Your task to perform on an android device: What's the weather? Image 0: 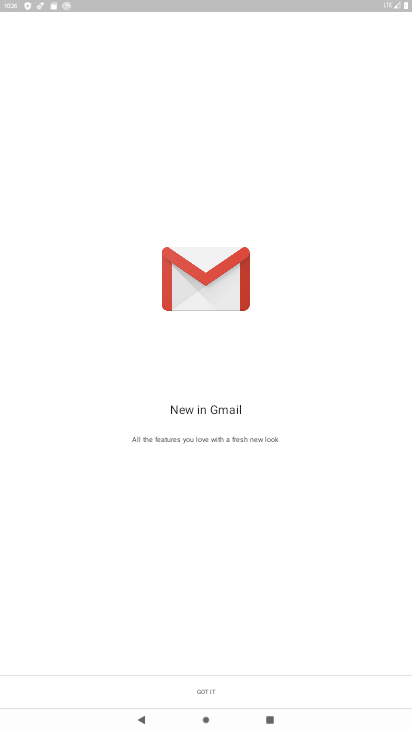
Step 0: press home button
Your task to perform on an android device: What's the weather? Image 1: 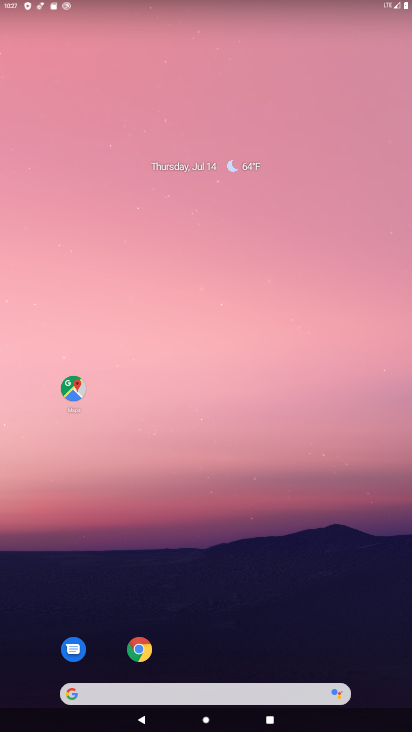
Step 1: click (133, 664)
Your task to perform on an android device: What's the weather? Image 2: 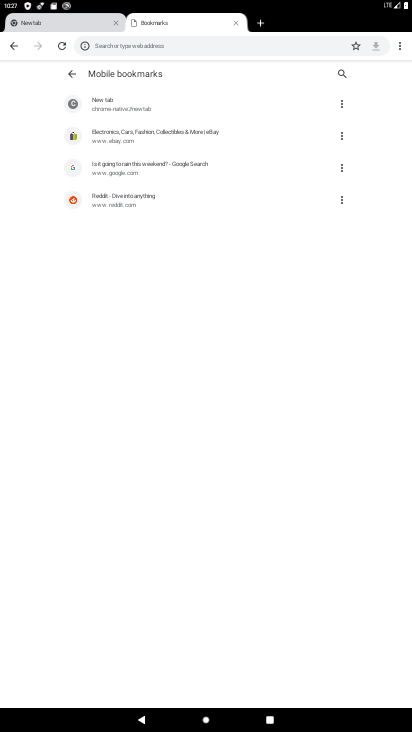
Step 2: click (150, 46)
Your task to perform on an android device: What's the weather? Image 3: 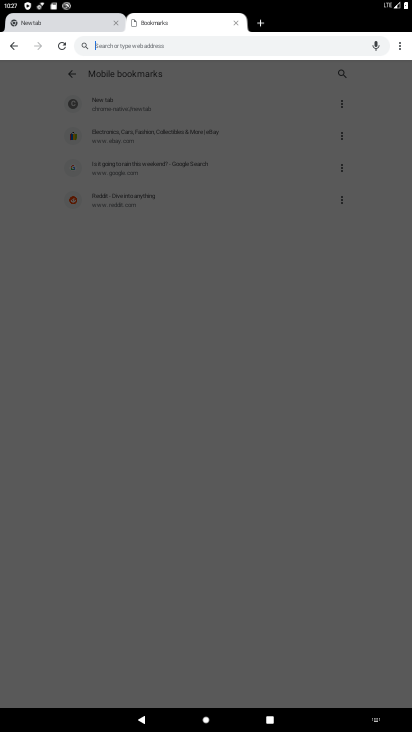
Step 3: type "What's the weather?"
Your task to perform on an android device: What's the weather? Image 4: 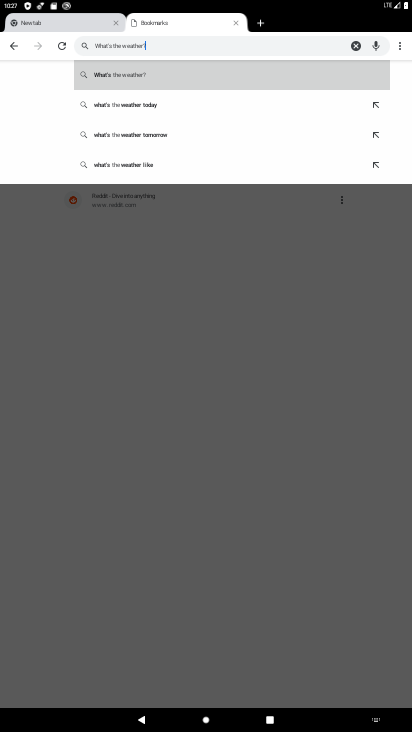
Step 4: type ""
Your task to perform on an android device: What's the weather? Image 5: 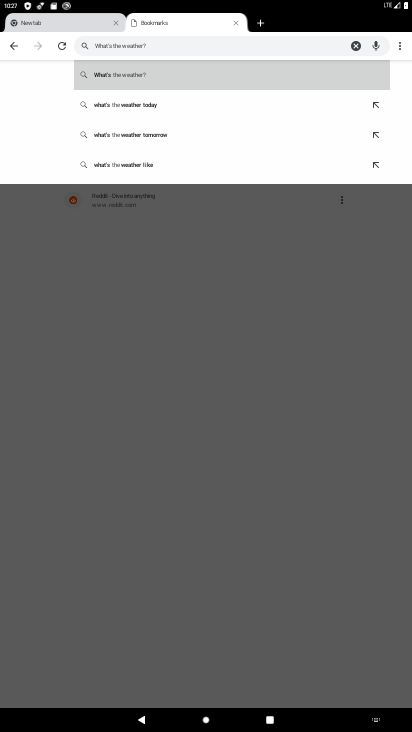
Step 5: click (157, 84)
Your task to perform on an android device: What's the weather? Image 6: 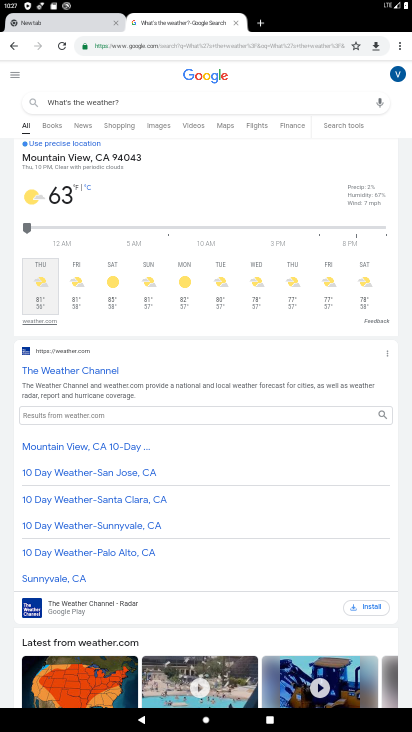
Step 6: task complete